Your task to perform on an android device: Open Chrome and go to the settings page Image 0: 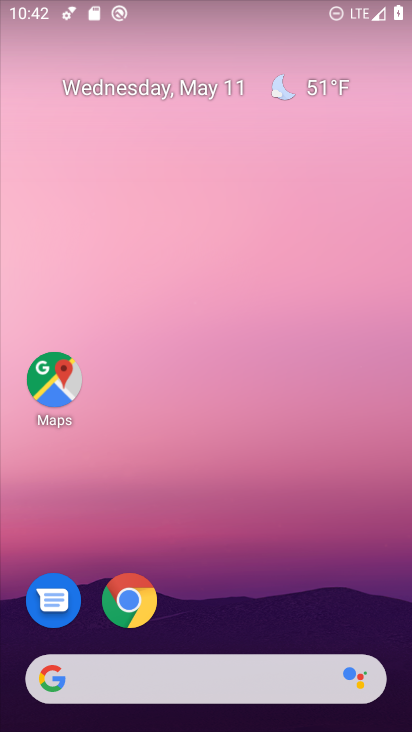
Step 0: click (118, 604)
Your task to perform on an android device: Open Chrome and go to the settings page Image 1: 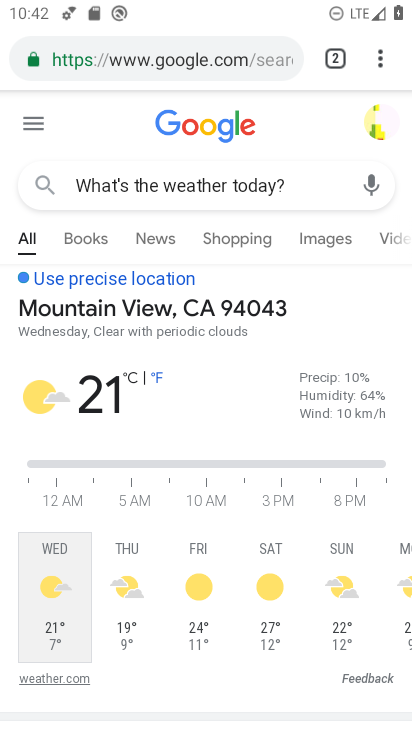
Step 1: task complete